Your task to perform on an android device: turn off data saver in the chrome app Image 0: 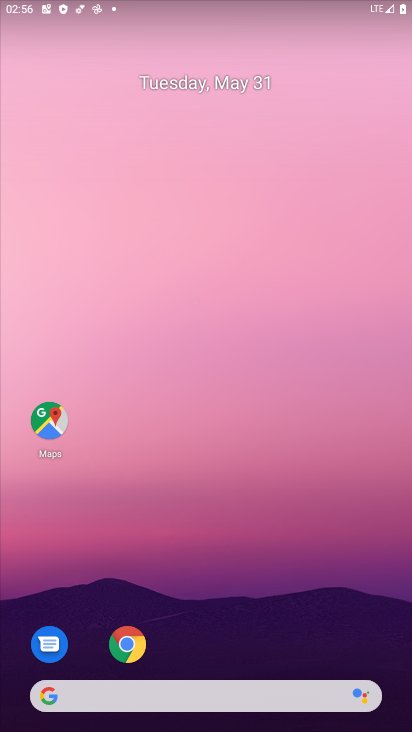
Step 0: click (129, 644)
Your task to perform on an android device: turn off data saver in the chrome app Image 1: 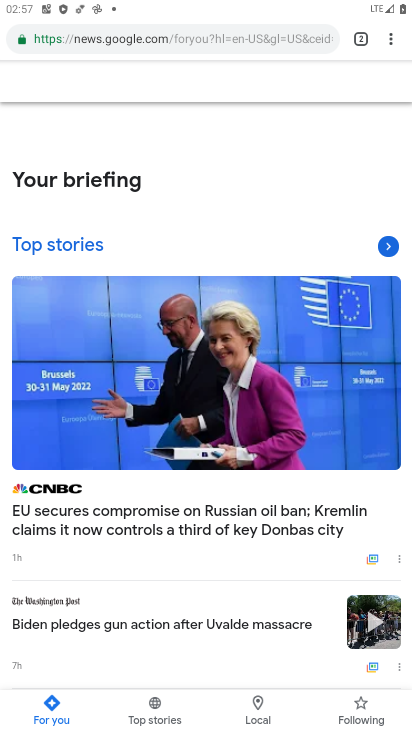
Step 1: drag from (394, 40) to (264, 473)
Your task to perform on an android device: turn off data saver in the chrome app Image 2: 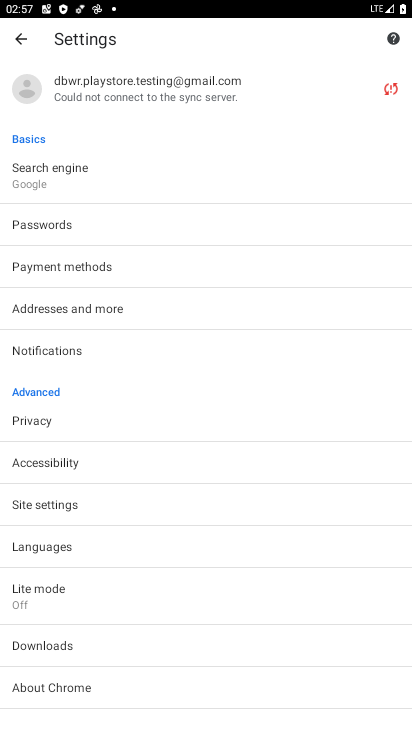
Step 2: drag from (145, 558) to (222, 99)
Your task to perform on an android device: turn off data saver in the chrome app Image 3: 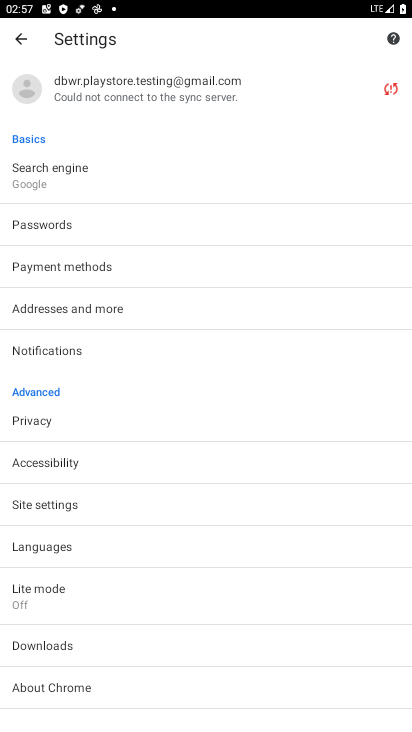
Step 3: click (51, 593)
Your task to perform on an android device: turn off data saver in the chrome app Image 4: 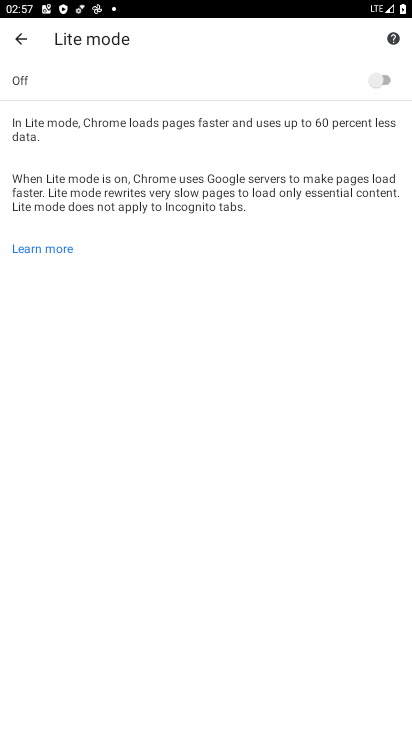
Step 4: task complete